Your task to perform on an android device: Open Google Image 0: 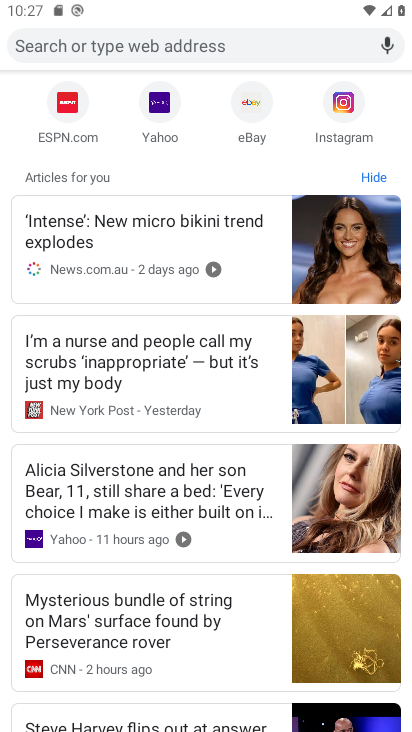
Step 0: drag from (143, 279) to (193, 546)
Your task to perform on an android device: Open Google Image 1: 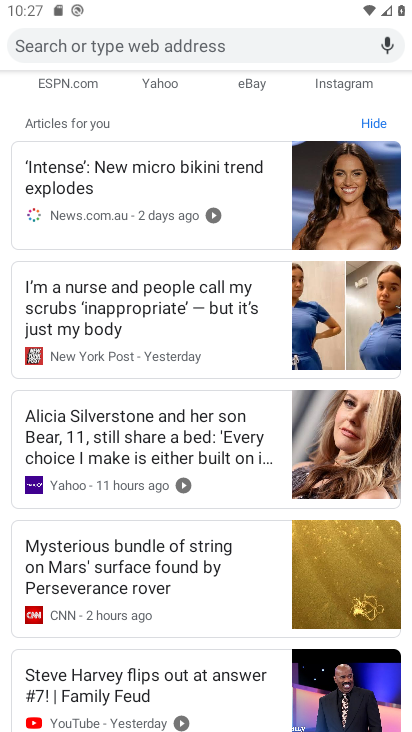
Step 1: drag from (162, 175) to (165, 482)
Your task to perform on an android device: Open Google Image 2: 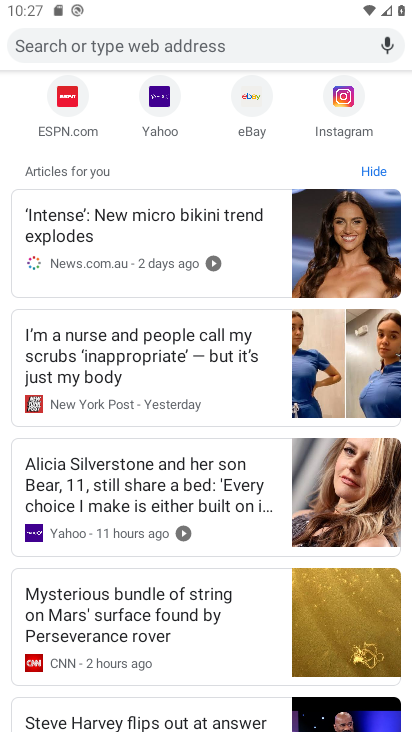
Step 2: click (175, 482)
Your task to perform on an android device: Open Google Image 3: 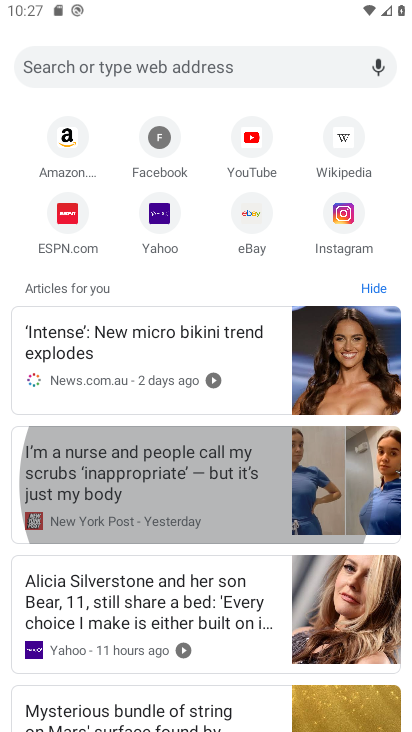
Step 3: task complete